Your task to perform on an android device: see tabs open on other devices in the chrome app Image 0: 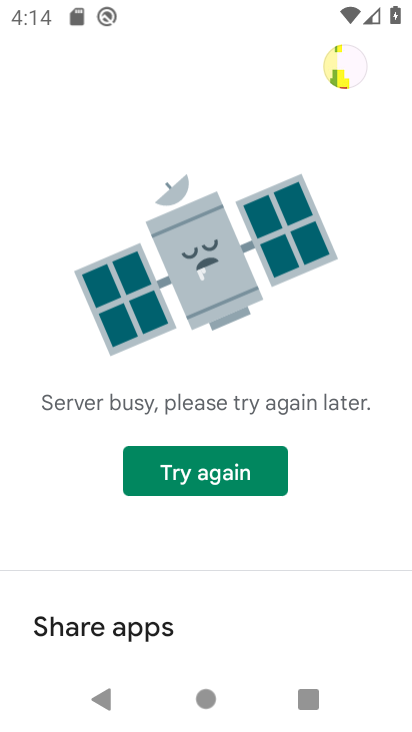
Step 0: press home button
Your task to perform on an android device: see tabs open on other devices in the chrome app Image 1: 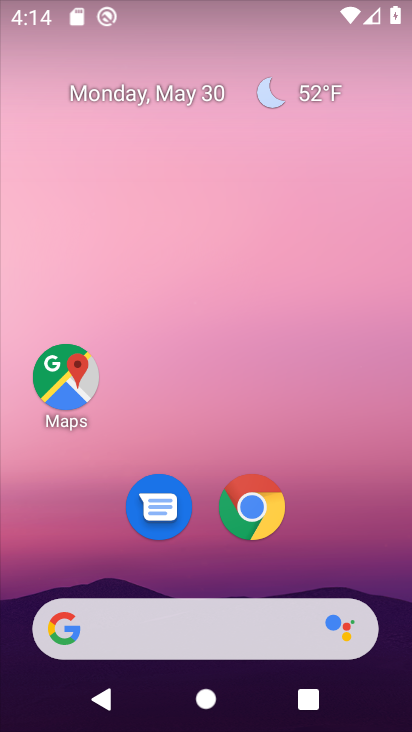
Step 1: click (246, 523)
Your task to perform on an android device: see tabs open on other devices in the chrome app Image 2: 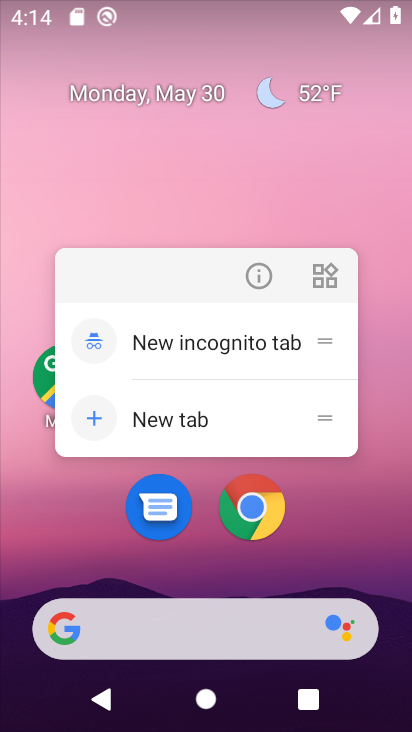
Step 2: click (236, 486)
Your task to perform on an android device: see tabs open on other devices in the chrome app Image 3: 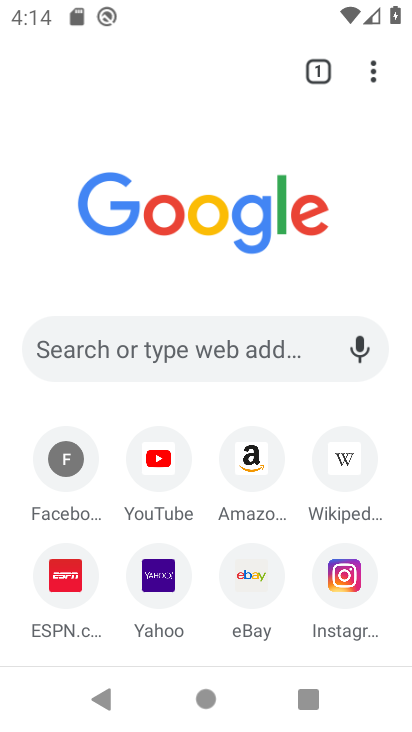
Step 3: drag from (384, 78) to (181, 344)
Your task to perform on an android device: see tabs open on other devices in the chrome app Image 4: 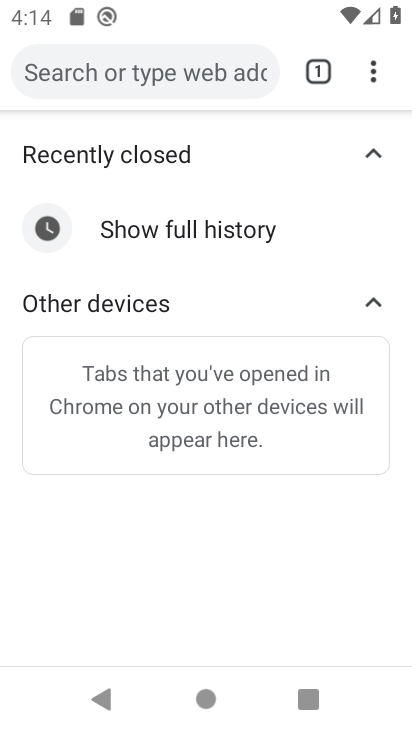
Step 4: click (238, 292)
Your task to perform on an android device: see tabs open on other devices in the chrome app Image 5: 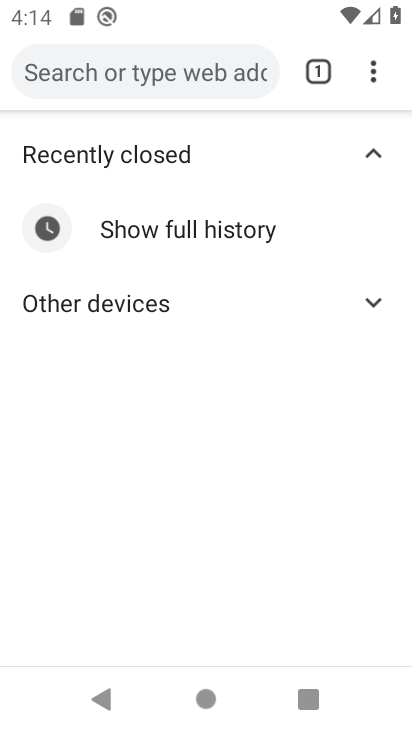
Step 5: click (238, 292)
Your task to perform on an android device: see tabs open on other devices in the chrome app Image 6: 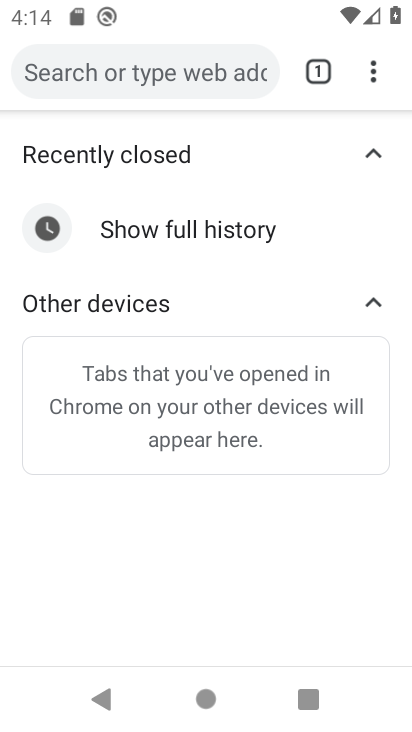
Step 6: task complete